Your task to perform on an android device: open chrome and create a bookmark for the current page Image 0: 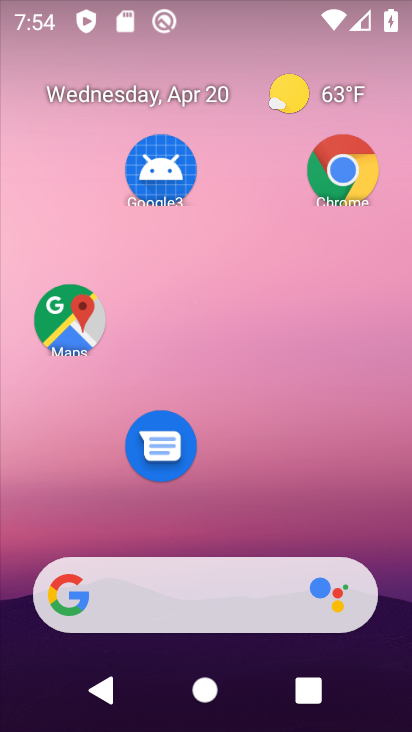
Step 0: click (340, 168)
Your task to perform on an android device: open chrome and create a bookmark for the current page Image 1: 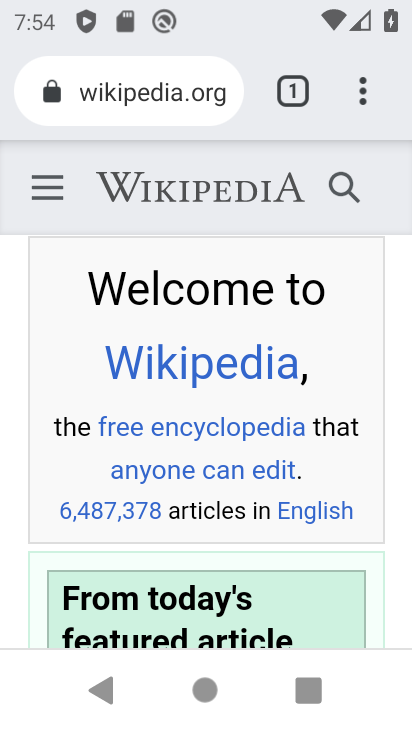
Step 1: click (292, 408)
Your task to perform on an android device: open chrome and create a bookmark for the current page Image 2: 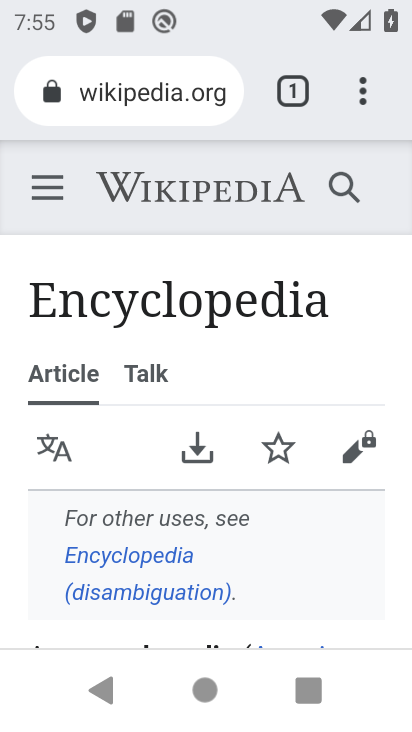
Step 2: click (357, 92)
Your task to perform on an android device: open chrome and create a bookmark for the current page Image 3: 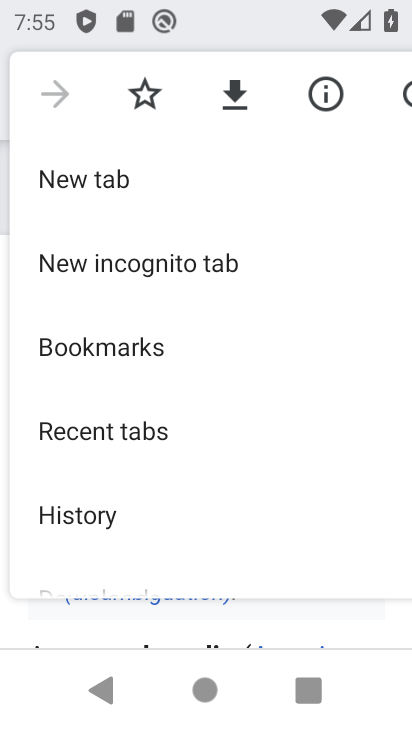
Step 3: click (144, 92)
Your task to perform on an android device: open chrome and create a bookmark for the current page Image 4: 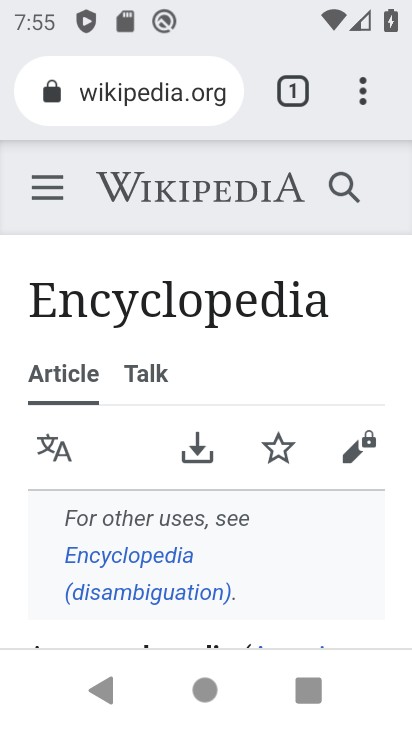
Step 4: task complete